Your task to perform on an android device: turn off notifications in google photos Image 0: 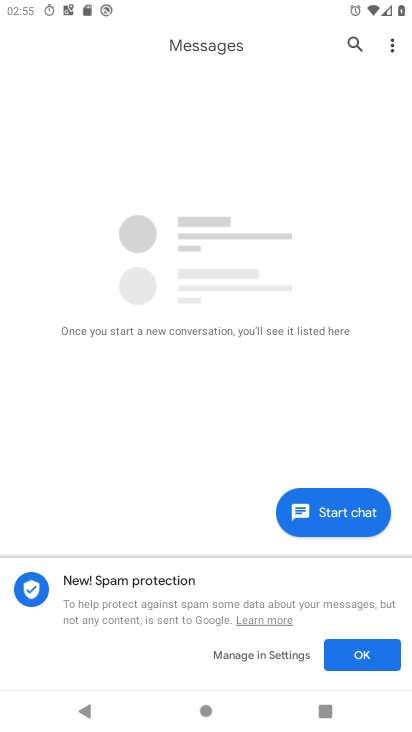
Step 0: drag from (218, 487) to (296, 54)
Your task to perform on an android device: turn off notifications in google photos Image 1: 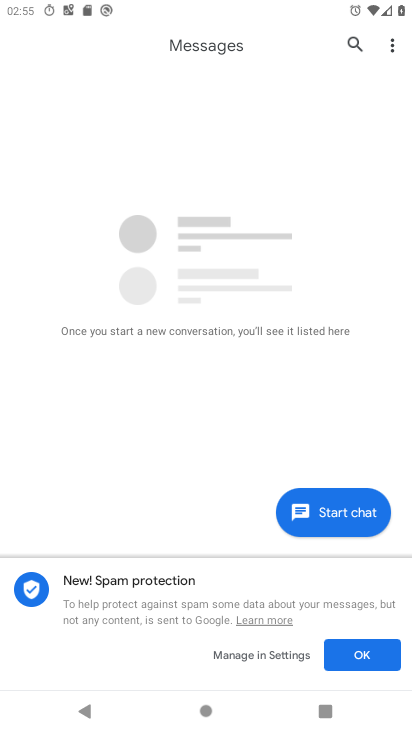
Step 1: press home button
Your task to perform on an android device: turn off notifications in google photos Image 2: 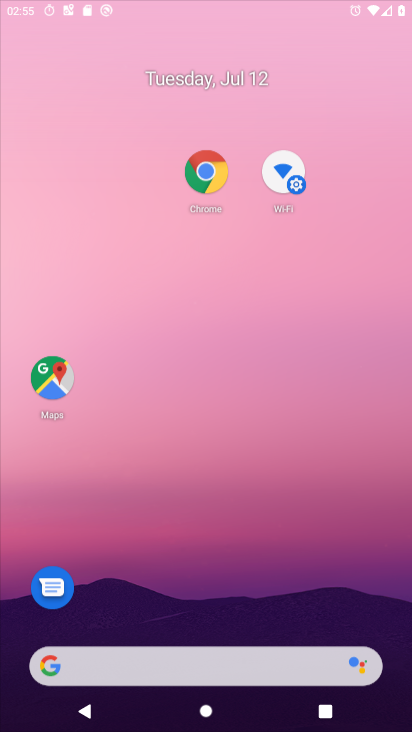
Step 2: drag from (223, 549) to (163, 10)
Your task to perform on an android device: turn off notifications in google photos Image 3: 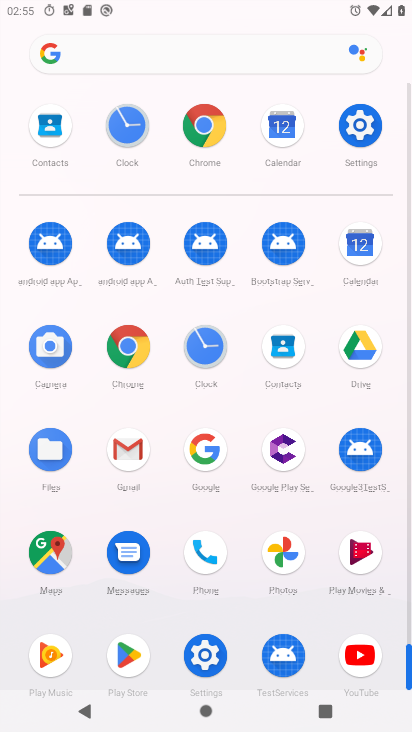
Step 3: click (287, 539)
Your task to perform on an android device: turn off notifications in google photos Image 4: 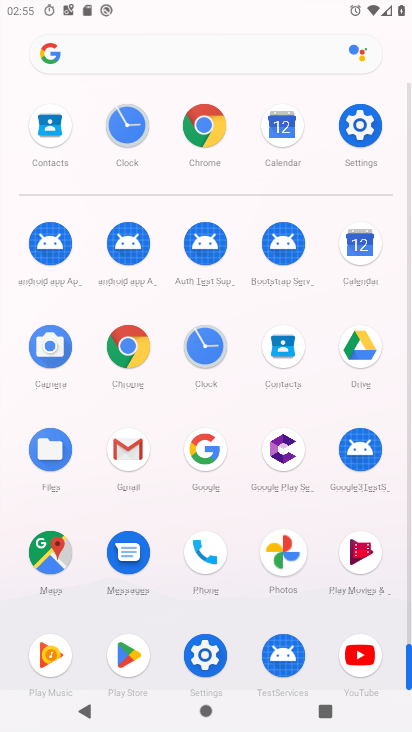
Step 4: click (284, 543)
Your task to perform on an android device: turn off notifications in google photos Image 5: 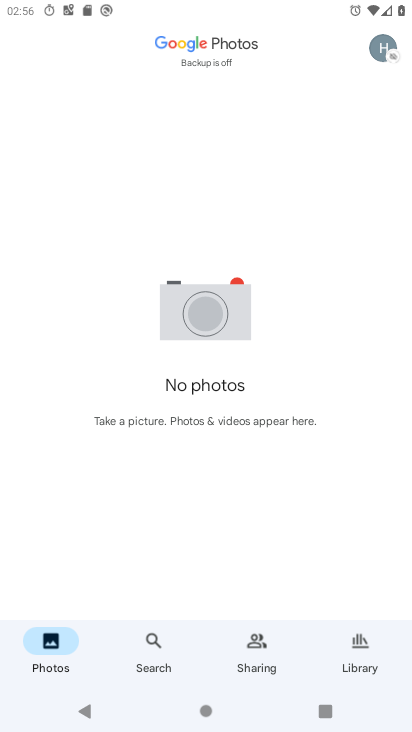
Step 5: click (374, 83)
Your task to perform on an android device: turn off notifications in google photos Image 6: 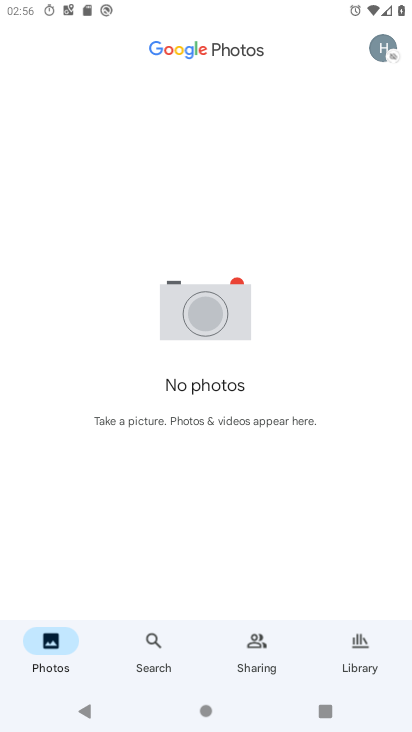
Step 6: click (389, 42)
Your task to perform on an android device: turn off notifications in google photos Image 7: 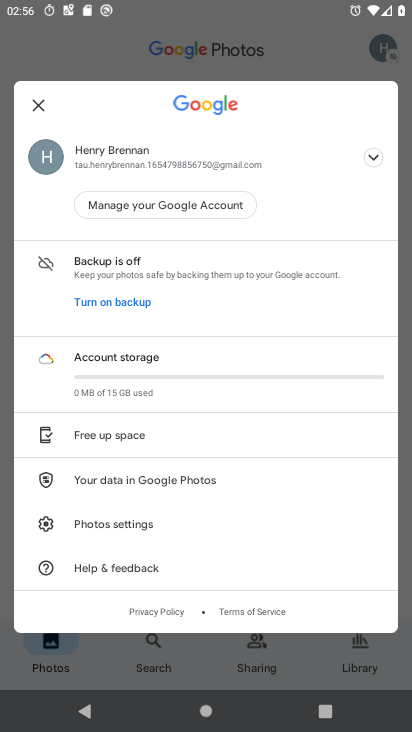
Step 7: click (108, 523)
Your task to perform on an android device: turn off notifications in google photos Image 8: 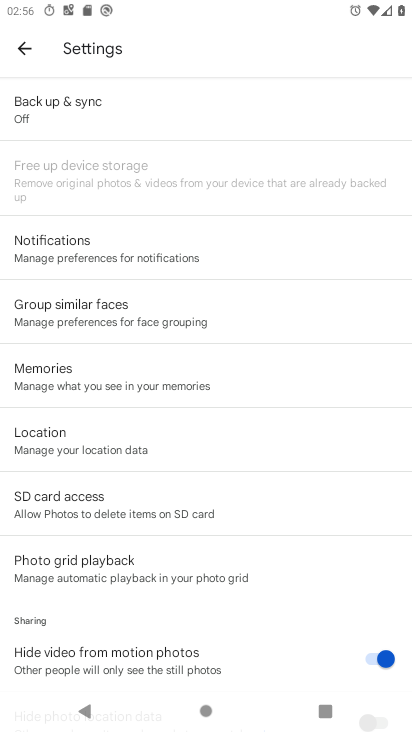
Step 8: click (247, 163)
Your task to perform on an android device: turn off notifications in google photos Image 9: 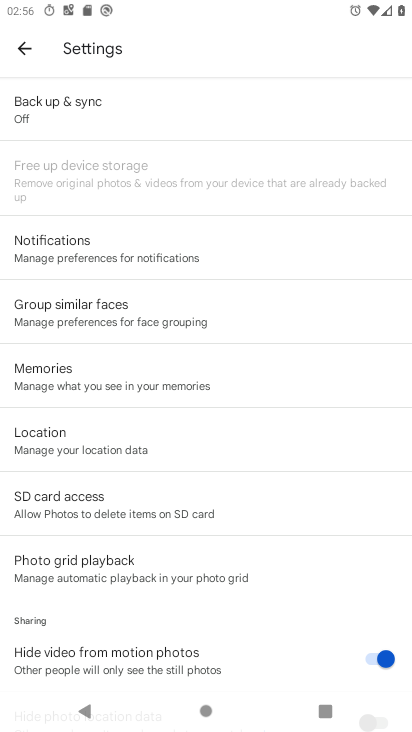
Step 9: click (116, 247)
Your task to perform on an android device: turn off notifications in google photos Image 10: 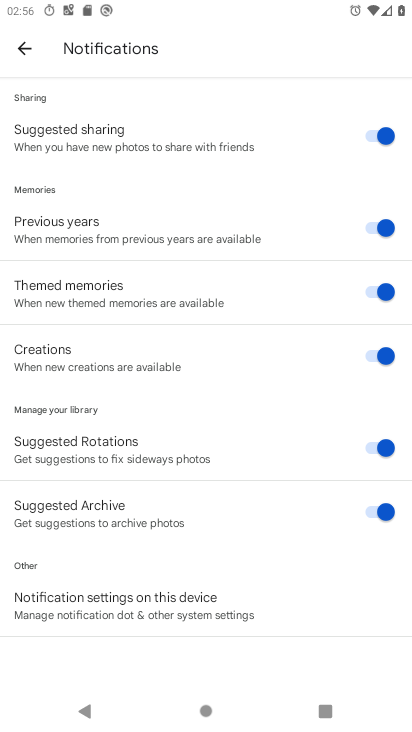
Step 10: click (99, 243)
Your task to perform on an android device: turn off notifications in google photos Image 11: 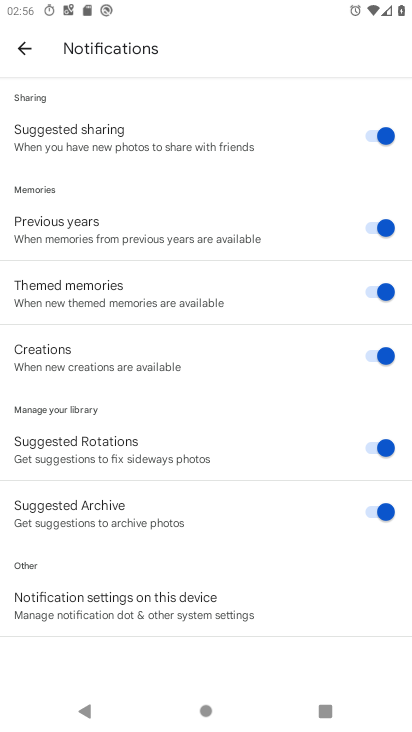
Step 11: click (99, 243)
Your task to perform on an android device: turn off notifications in google photos Image 12: 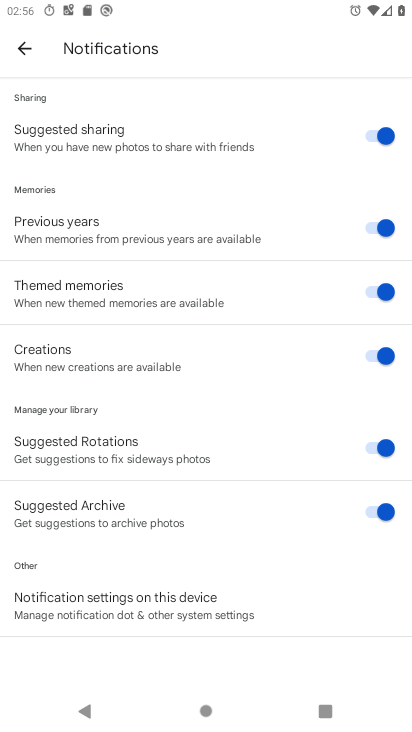
Step 12: click (95, 243)
Your task to perform on an android device: turn off notifications in google photos Image 13: 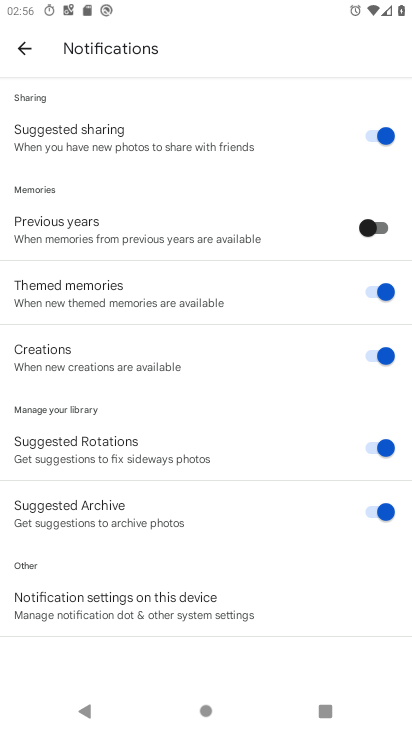
Step 13: click (125, 596)
Your task to perform on an android device: turn off notifications in google photos Image 14: 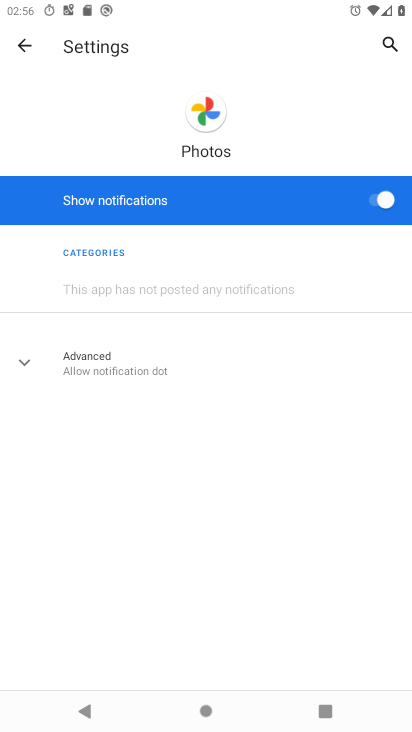
Step 14: click (380, 201)
Your task to perform on an android device: turn off notifications in google photos Image 15: 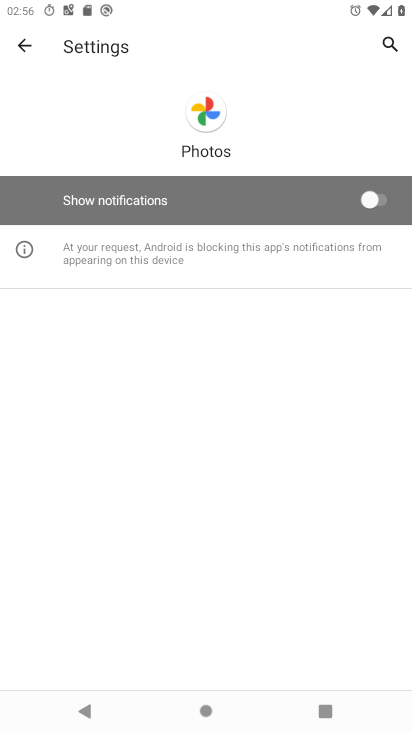
Step 15: task complete